Your task to perform on an android device: find photos in the google photos app Image 0: 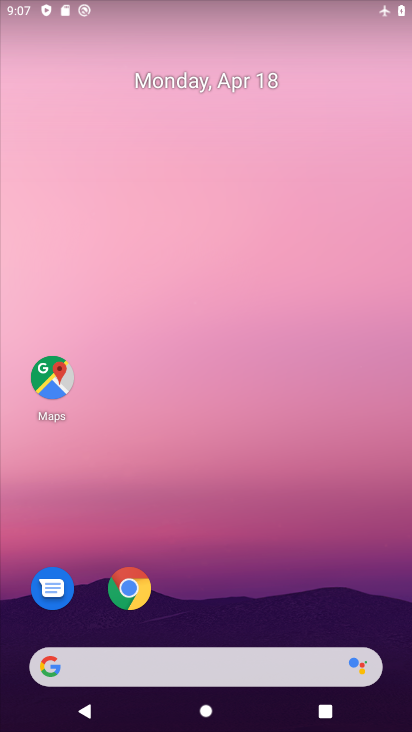
Step 0: click (311, 242)
Your task to perform on an android device: find photos in the google photos app Image 1: 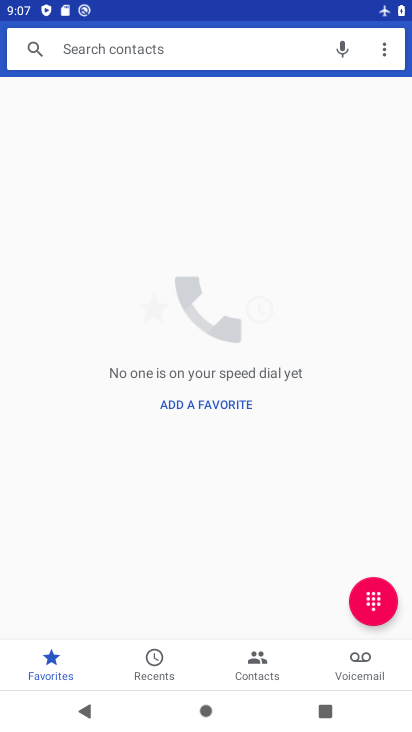
Step 1: press home button
Your task to perform on an android device: find photos in the google photos app Image 2: 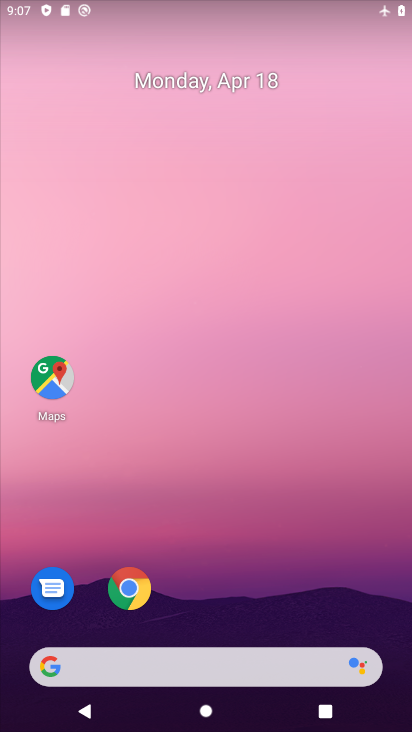
Step 2: drag from (271, 354) to (278, 220)
Your task to perform on an android device: find photos in the google photos app Image 3: 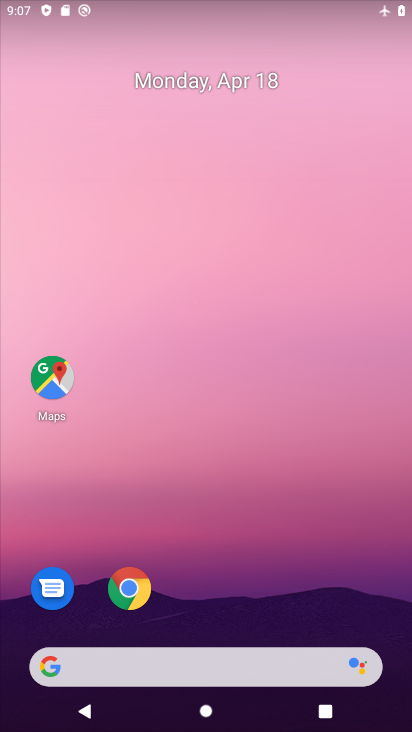
Step 3: drag from (228, 562) to (244, 239)
Your task to perform on an android device: find photos in the google photos app Image 4: 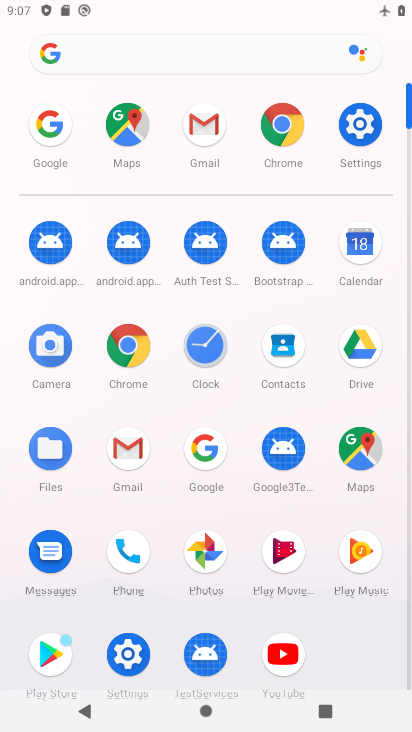
Step 4: click (195, 554)
Your task to perform on an android device: find photos in the google photos app Image 5: 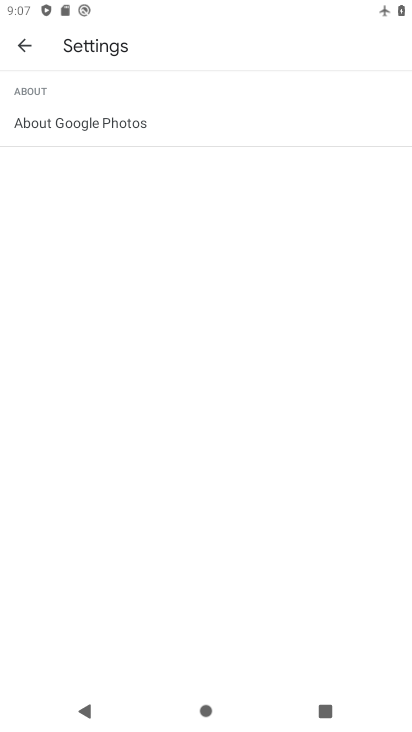
Step 5: press back button
Your task to perform on an android device: find photos in the google photos app Image 6: 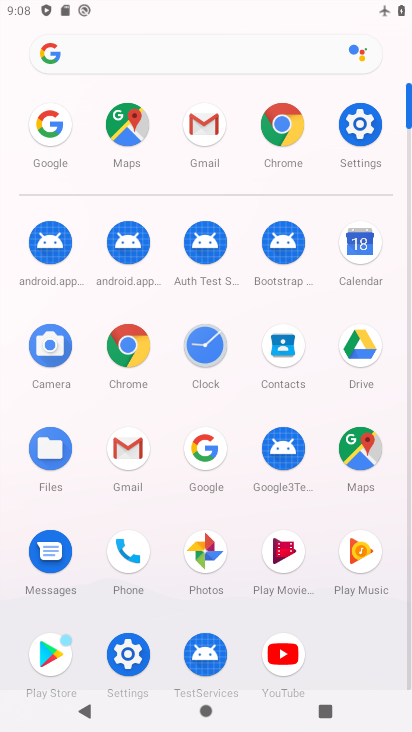
Step 6: click (203, 545)
Your task to perform on an android device: find photos in the google photos app Image 7: 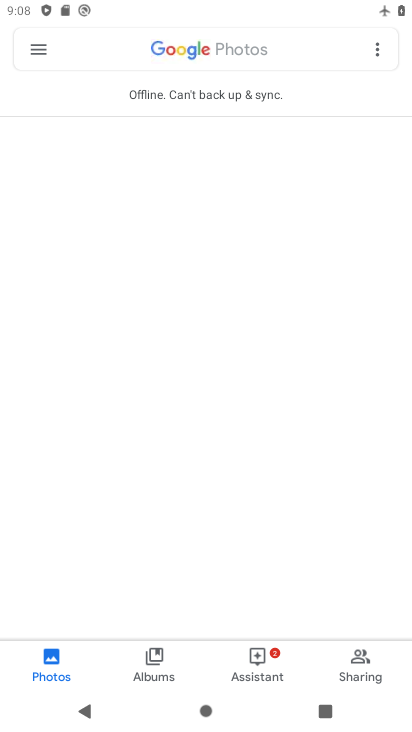
Step 7: click (167, 662)
Your task to perform on an android device: find photos in the google photos app Image 8: 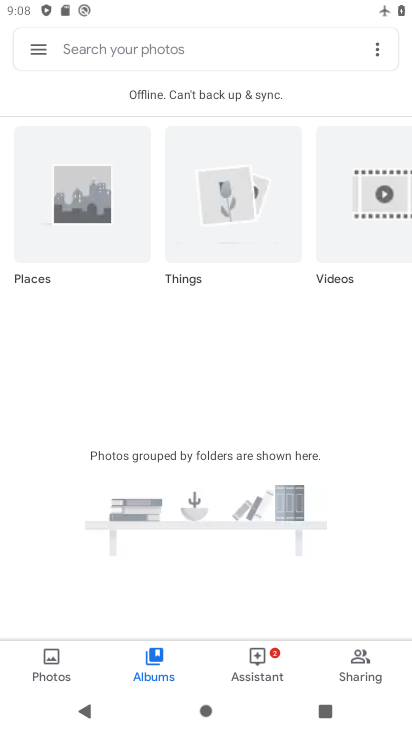
Step 8: click (341, 231)
Your task to perform on an android device: find photos in the google photos app Image 9: 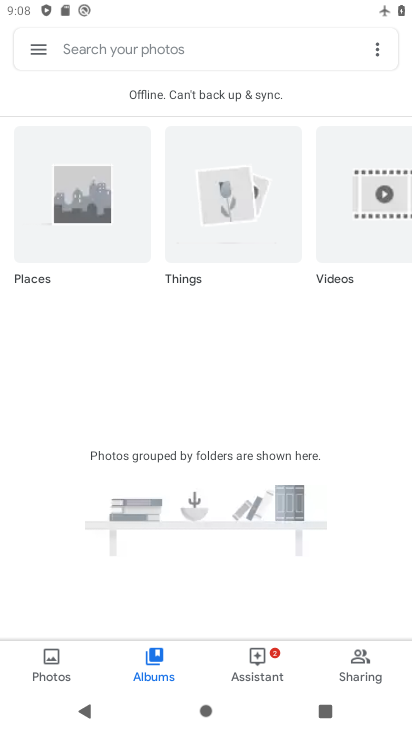
Step 9: click (38, 667)
Your task to perform on an android device: find photos in the google photos app Image 10: 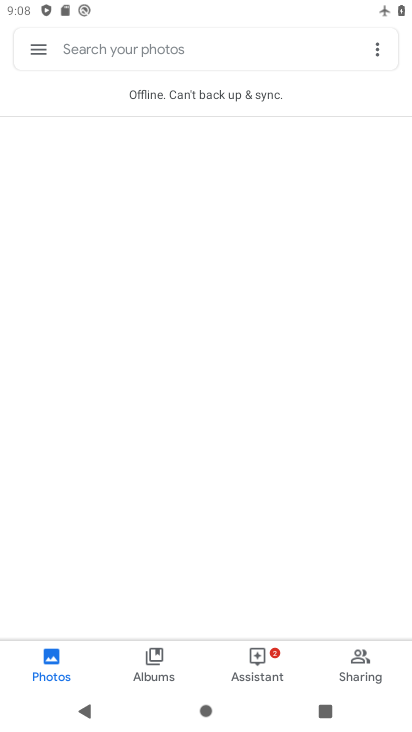
Step 10: task complete